Your task to perform on an android device: stop showing notifications on the lock screen Image 0: 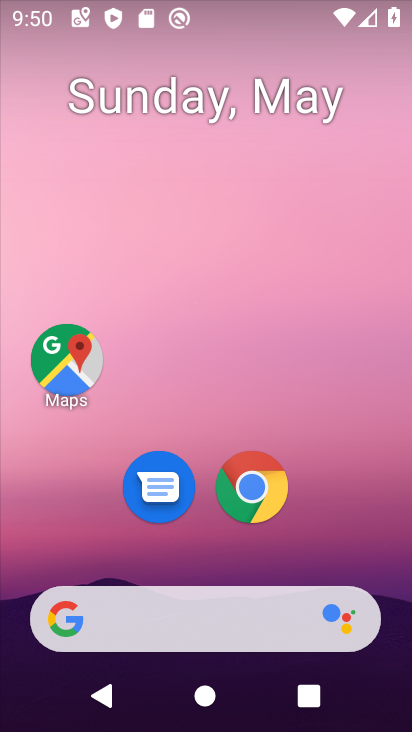
Step 0: drag from (384, 564) to (332, 176)
Your task to perform on an android device: stop showing notifications on the lock screen Image 1: 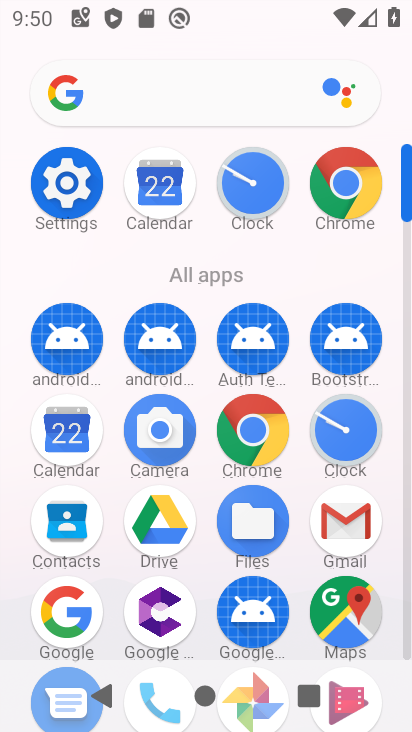
Step 1: click (52, 199)
Your task to perform on an android device: stop showing notifications on the lock screen Image 2: 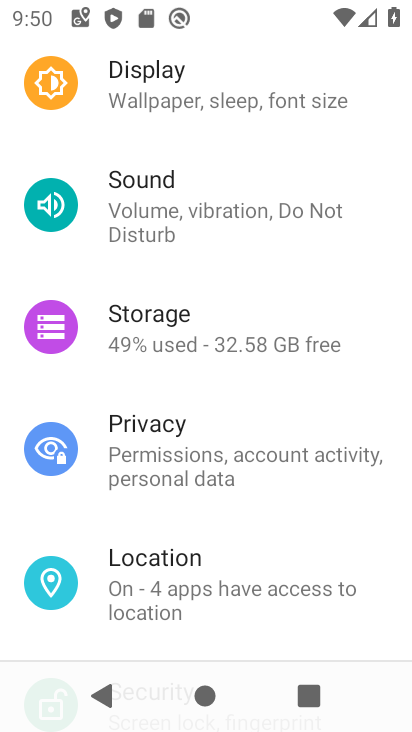
Step 2: drag from (323, 261) to (331, 386)
Your task to perform on an android device: stop showing notifications on the lock screen Image 3: 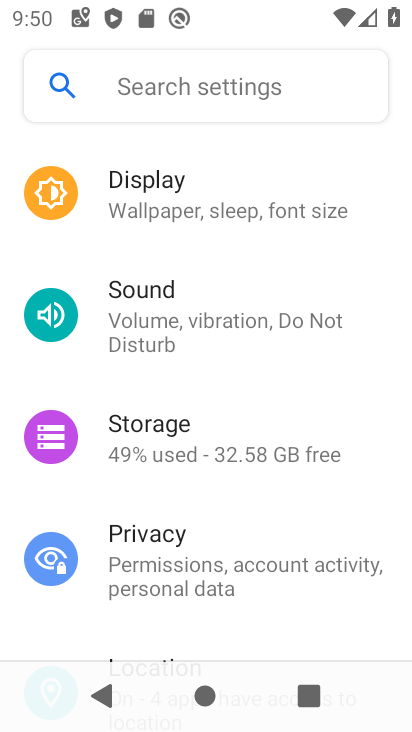
Step 3: drag from (328, 237) to (333, 412)
Your task to perform on an android device: stop showing notifications on the lock screen Image 4: 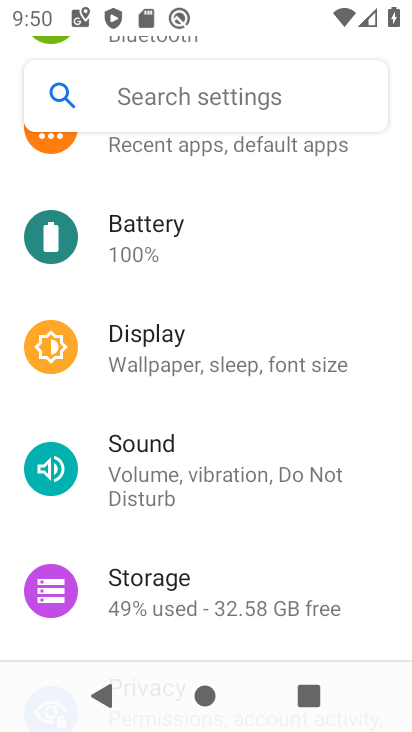
Step 4: drag from (333, 238) to (333, 434)
Your task to perform on an android device: stop showing notifications on the lock screen Image 5: 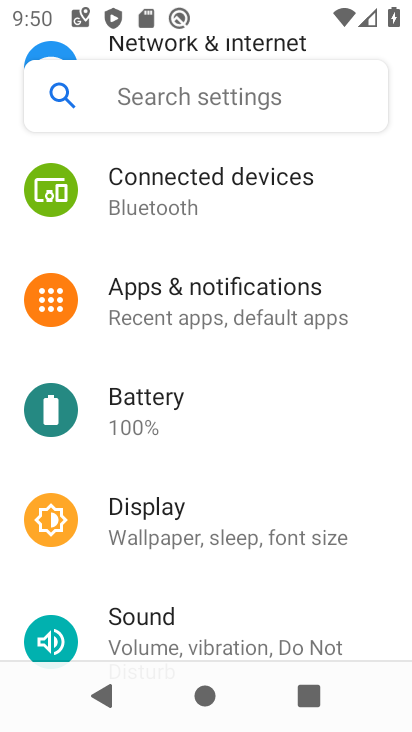
Step 5: drag from (345, 239) to (342, 416)
Your task to perform on an android device: stop showing notifications on the lock screen Image 6: 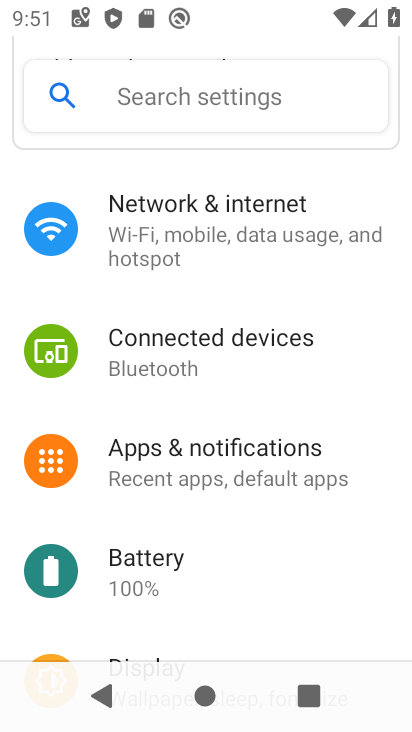
Step 6: drag from (346, 289) to (361, 420)
Your task to perform on an android device: stop showing notifications on the lock screen Image 7: 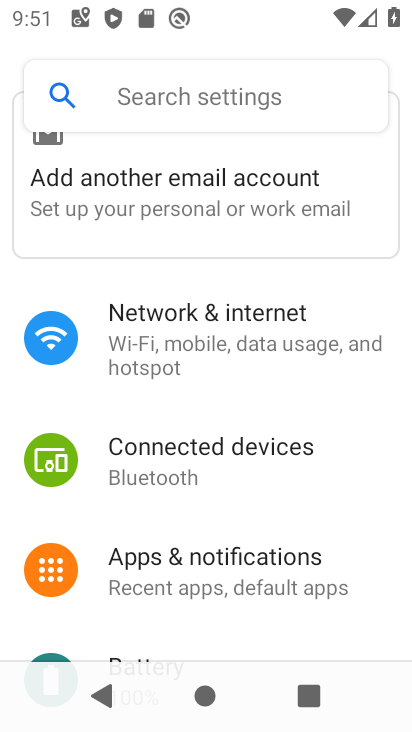
Step 7: drag from (344, 291) to (354, 463)
Your task to perform on an android device: stop showing notifications on the lock screen Image 8: 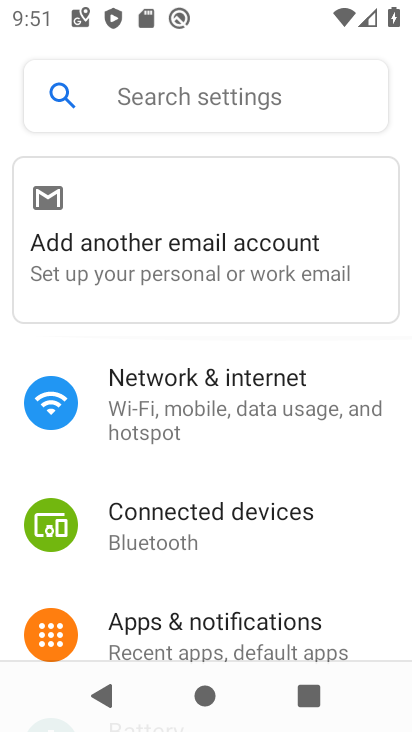
Step 8: drag from (349, 474) to (329, 334)
Your task to perform on an android device: stop showing notifications on the lock screen Image 9: 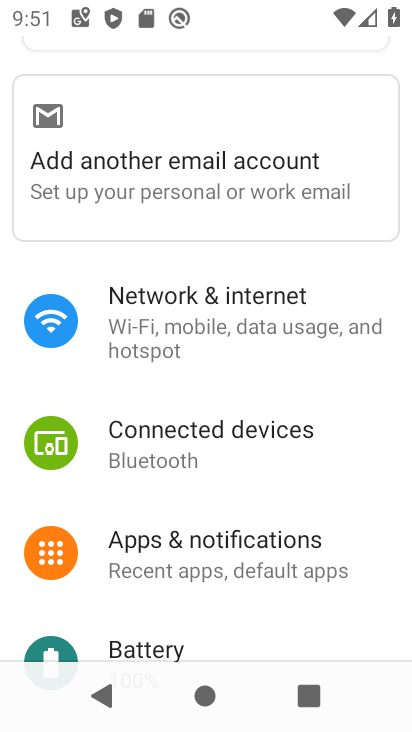
Step 9: drag from (326, 482) to (326, 357)
Your task to perform on an android device: stop showing notifications on the lock screen Image 10: 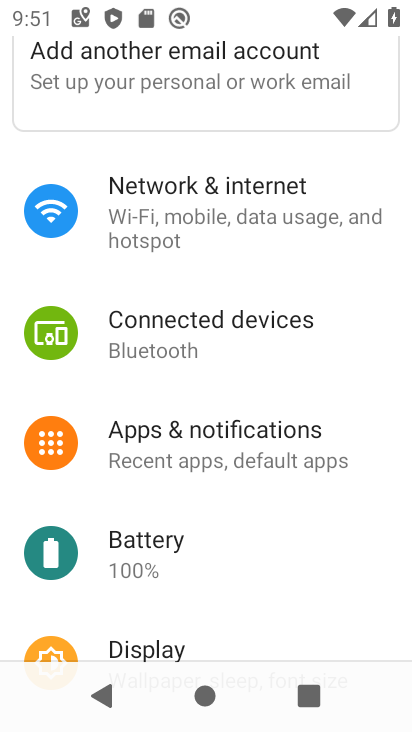
Step 10: drag from (326, 509) to (318, 403)
Your task to perform on an android device: stop showing notifications on the lock screen Image 11: 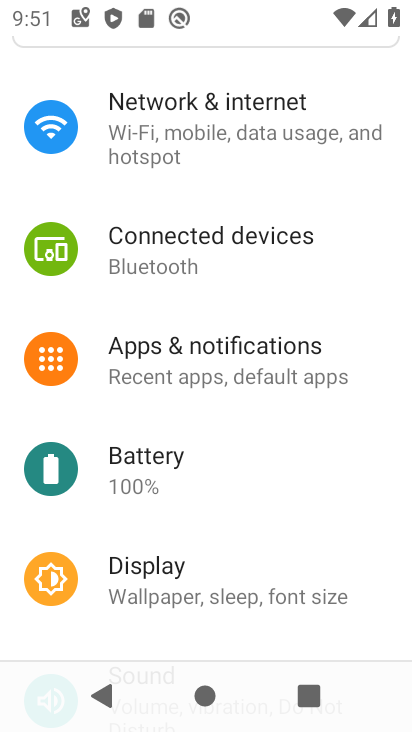
Step 11: drag from (318, 499) to (318, 389)
Your task to perform on an android device: stop showing notifications on the lock screen Image 12: 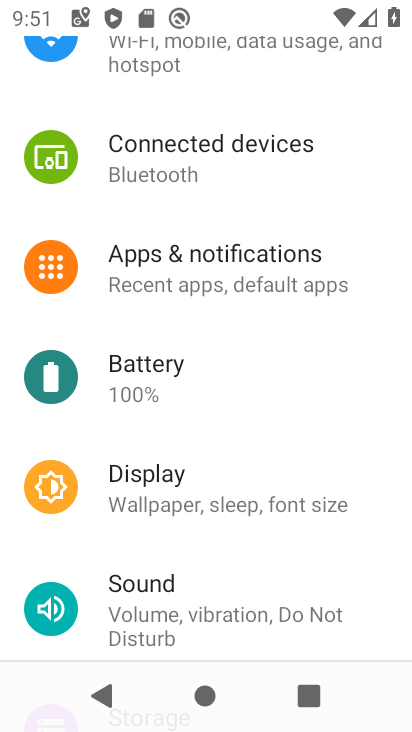
Step 12: drag from (306, 557) to (316, 440)
Your task to perform on an android device: stop showing notifications on the lock screen Image 13: 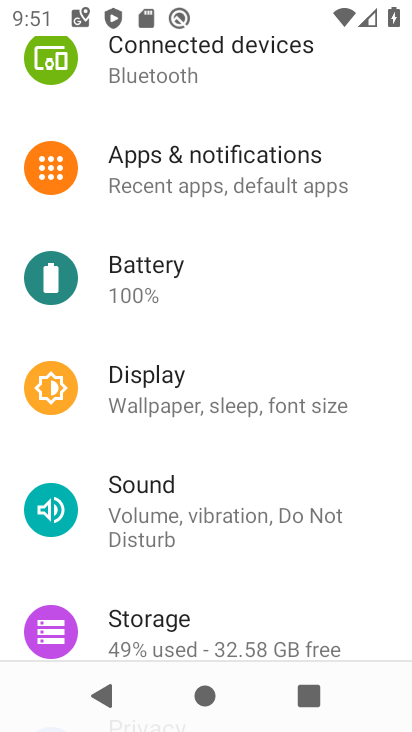
Step 13: click (295, 178)
Your task to perform on an android device: stop showing notifications on the lock screen Image 14: 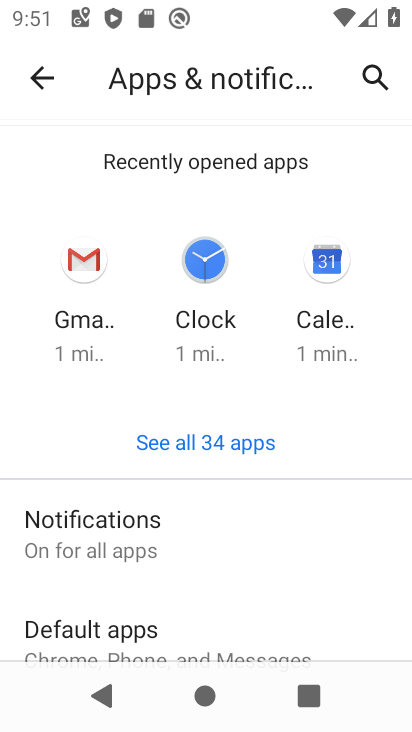
Step 14: click (150, 544)
Your task to perform on an android device: stop showing notifications on the lock screen Image 15: 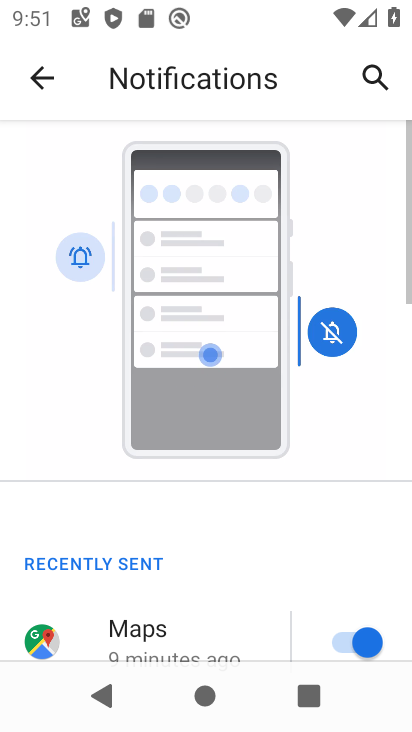
Step 15: drag from (209, 579) to (221, 430)
Your task to perform on an android device: stop showing notifications on the lock screen Image 16: 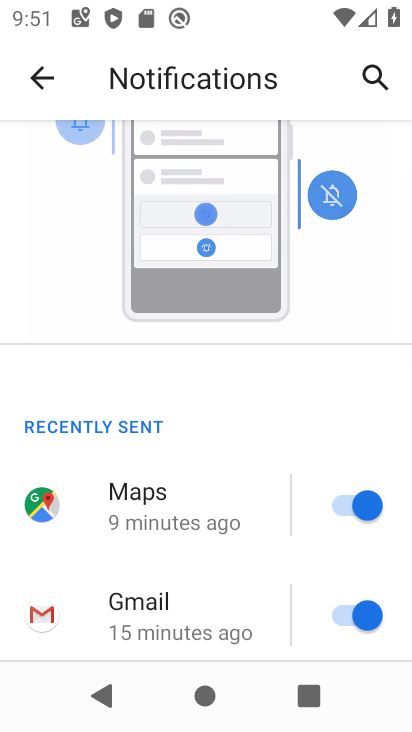
Step 16: drag from (224, 587) to (227, 419)
Your task to perform on an android device: stop showing notifications on the lock screen Image 17: 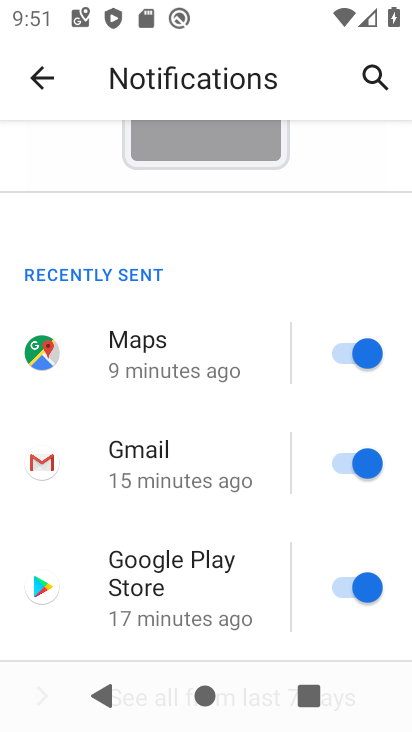
Step 17: drag from (252, 610) to (248, 509)
Your task to perform on an android device: stop showing notifications on the lock screen Image 18: 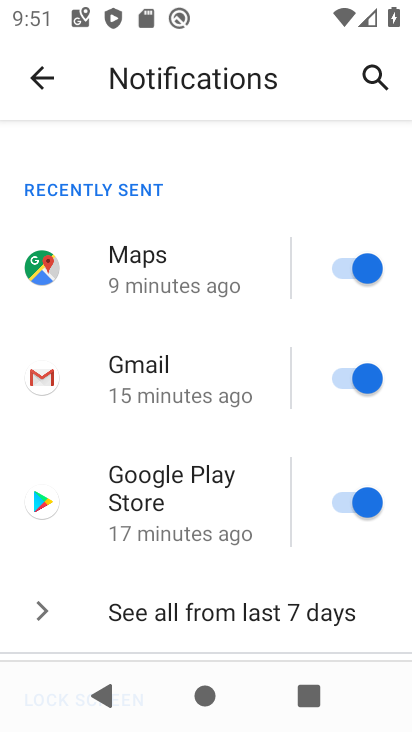
Step 18: drag from (256, 592) to (252, 455)
Your task to perform on an android device: stop showing notifications on the lock screen Image 19: 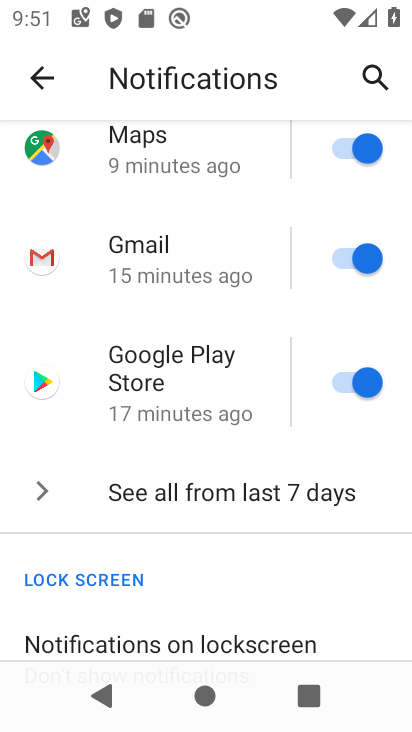
Step 19: drag from (270, 592) to (267, 476)
Your task to perform on an android device: stop showing notifications on the lock screen Image 20: 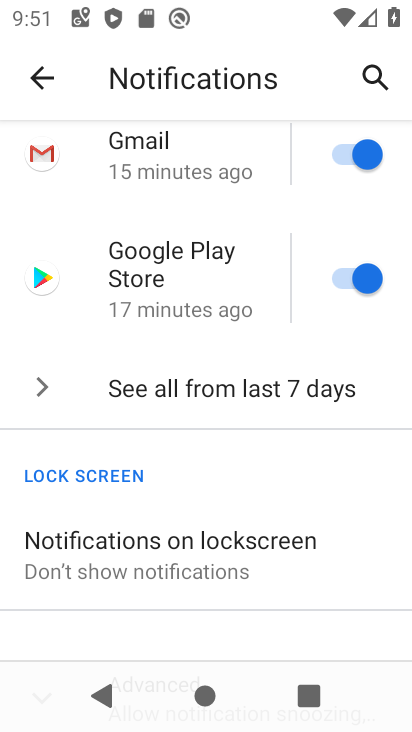
Step 20: click (266, 558)
Your task to perform on an android device: stop showing notifications on the lock screen Image 21: 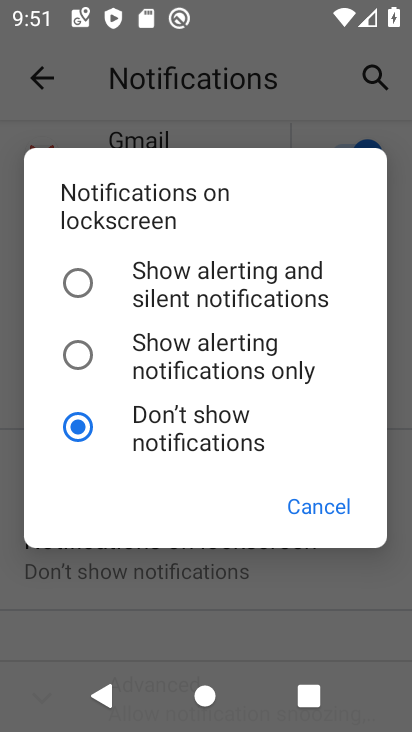
Step 21: task complete